Your task to perform on an android device: Open Google Chrome Image 0: 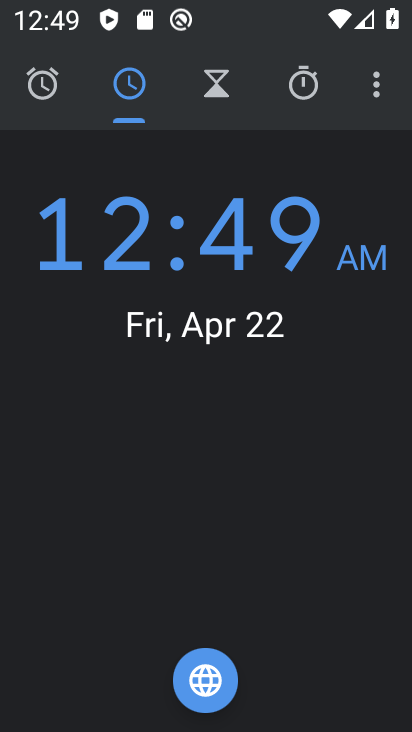
Step 0: press home button
Your task to perform on an android device: Open Google Chrome Image 1: 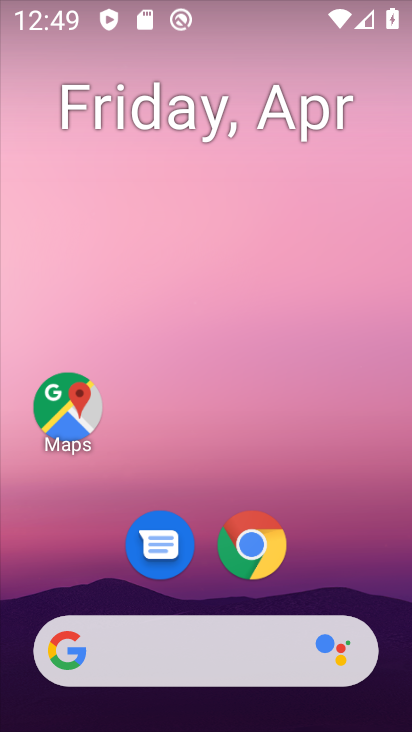
Step 1: click (261, 534)
Your task to perform on an android device: Open Google Chrome Image 2: 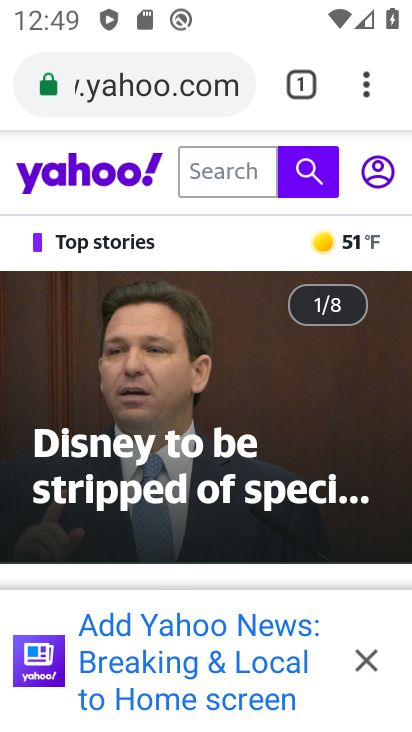
Step 2: click (368, 84)
Your task to perform on an android device: Open Google Chrome Image 3: 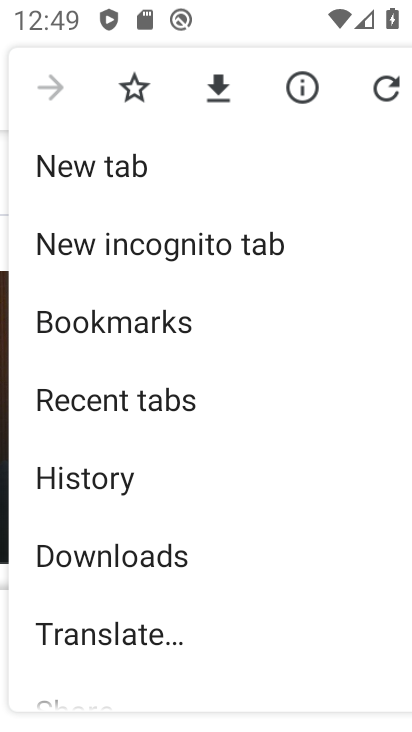
Step 3: task complete